Your task to perform on an android device: Open internet settings Image 0: 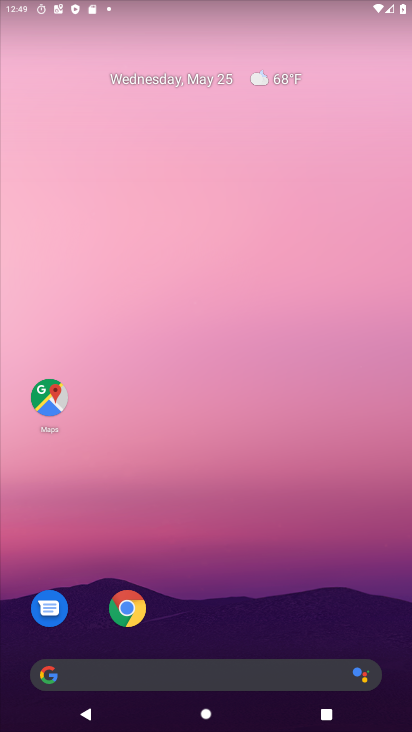
Step 0: drag from (383, 641) to (27, 160)
Your task to perform on an android device: Open internet settings Image 1: 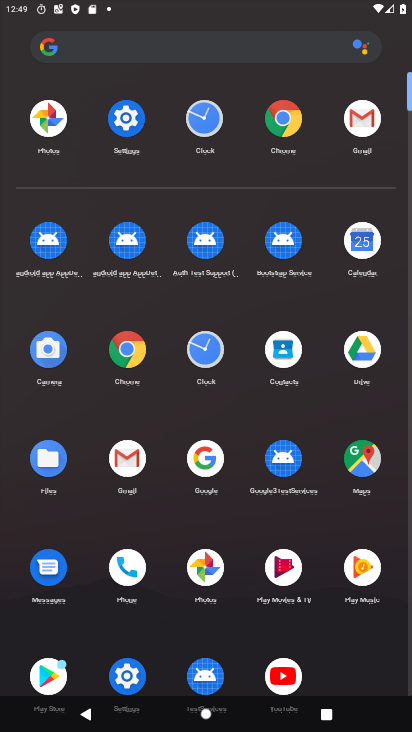
Step 1: click (115, 125)
Your task to perform on an android device: Open internet settings Image 2: 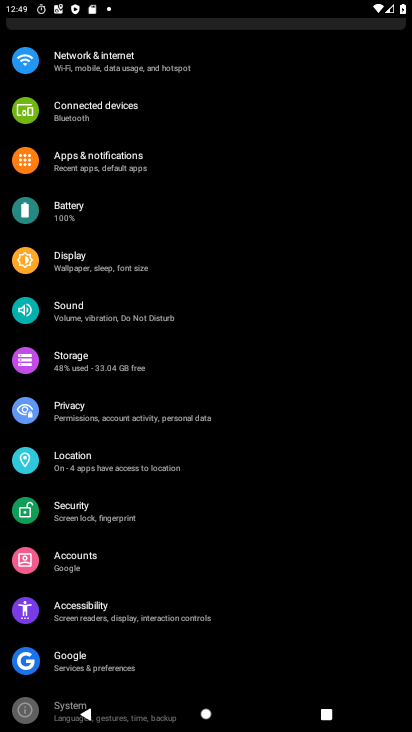
Step 2: click (103, 75)
Your task to perform on an android device: Open internet settings Image 3: 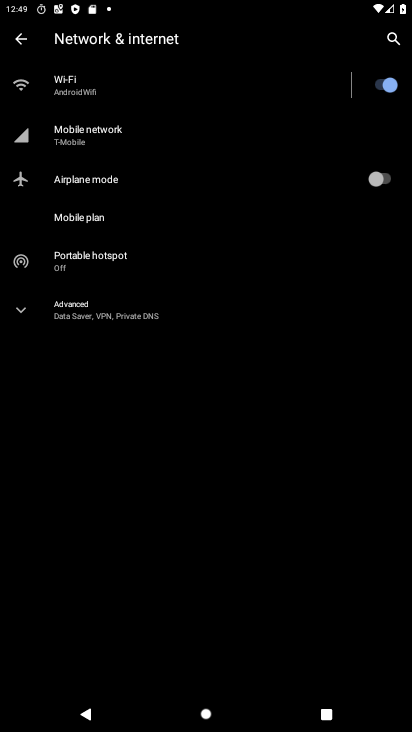
Step 3: task complete